Your task to perform on an android device: What's the weather going to be this weekend? Image 0: 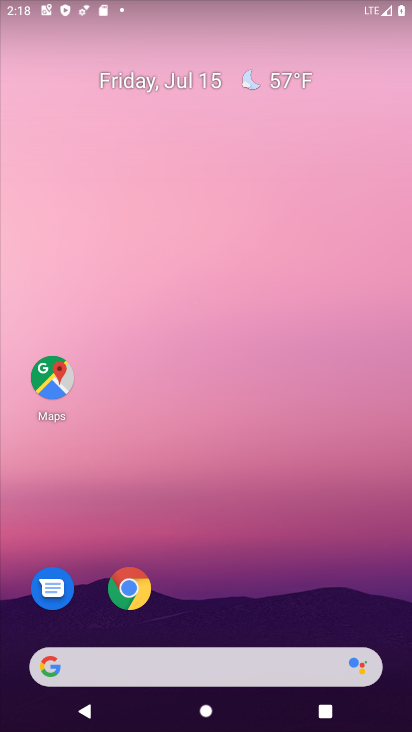
Step 0: drag from (181, 307) to (163, 10)
Your task to perform on an android device: What's the weather going to be this weekend? Image 1: 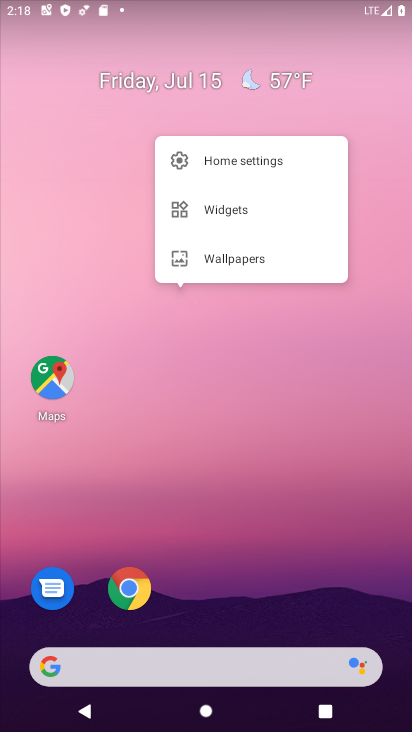
Step 1: click (19, 325)
Your task to perform on an android device: What's the weather going to be this weekend? Image 2: 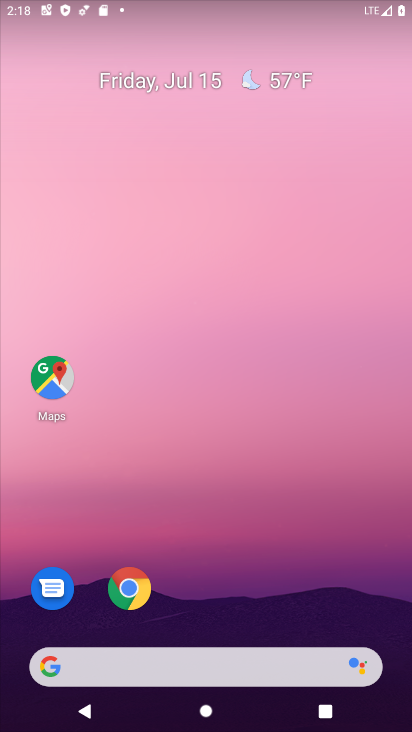
Step 2: click (289, 91)
Your task to perform on an android device: What's the weather going to be this weekend? Image 3: 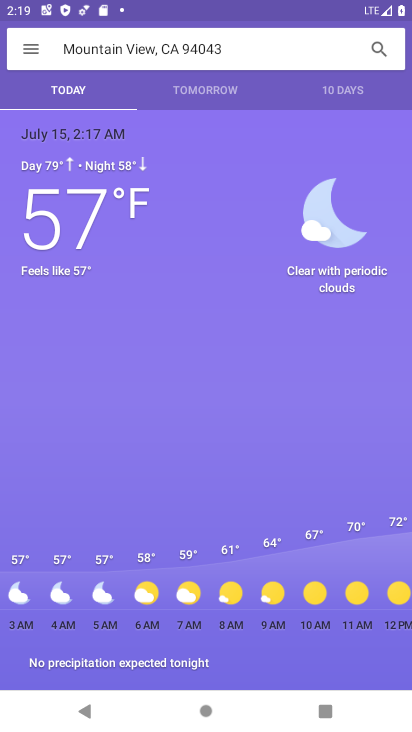
Step 3: click (230, 93)
Your task to perform on an android device: What's the weather going to be this weekend? Image 4: 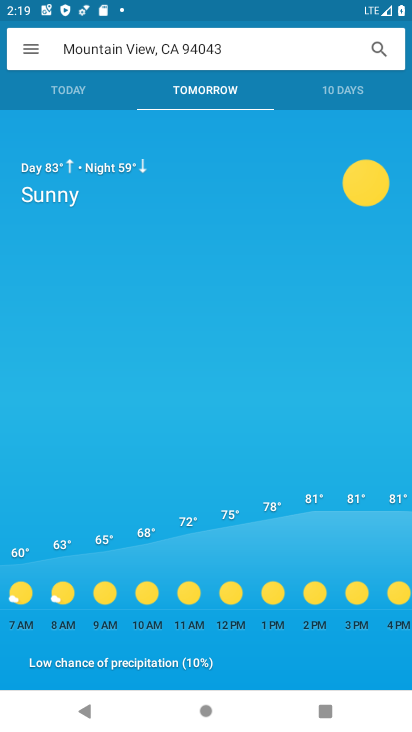
Step 4: task complete